Your task to perform on an android device: open wifi settings Image 0: 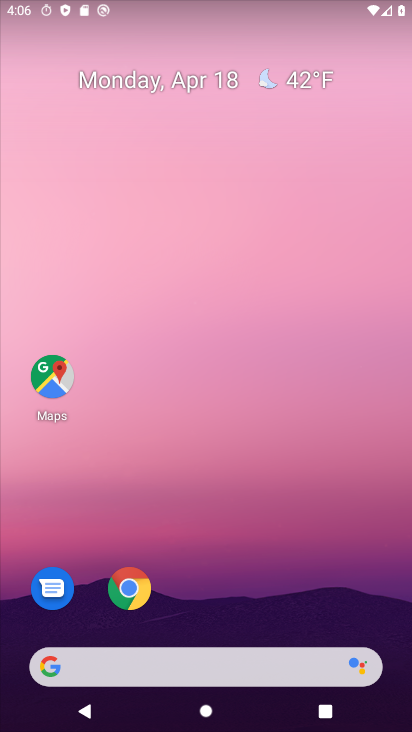
Step 0: drag from (160, 56) to (204, 499)
Your task to perform on an android device: open wifi settings Image 1: 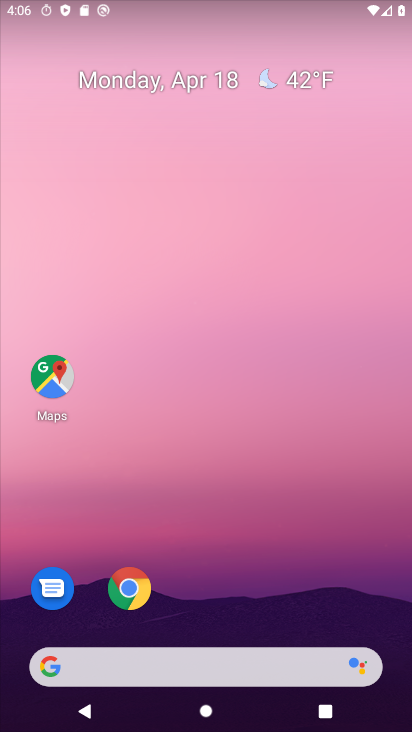
Step 1: drag from (125, 17) to (150, 641)
Your task to perform on an android device: open wifi settings Image 2: 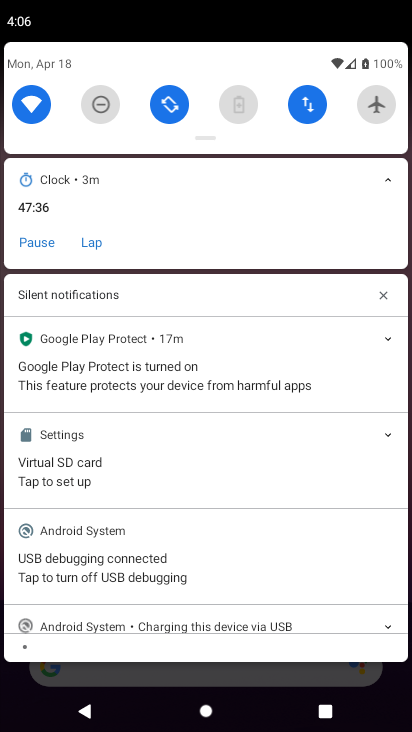
Step 2: click (43, 107)
Your task to perform on an android device: open wifi settings Image 3: 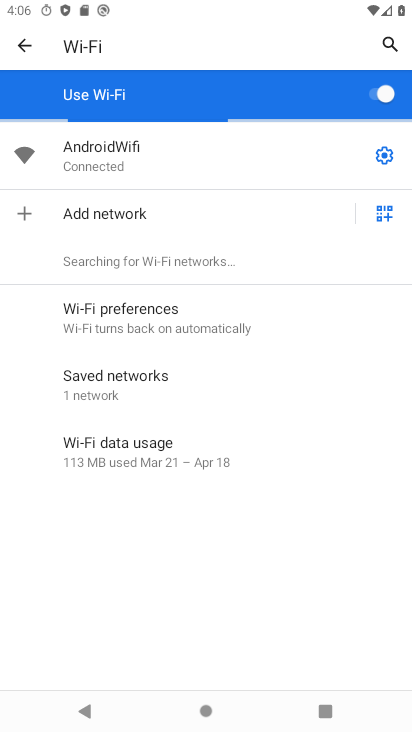
Step 3: task complete